Your task to perform on an android device: Open sound settings Image 0: 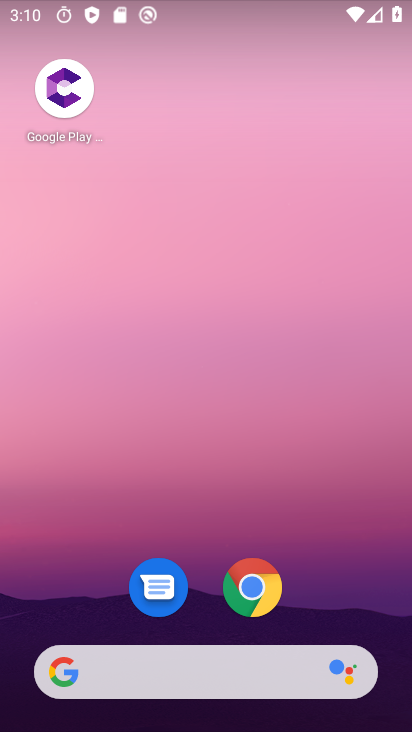
Step 0: drag from (335, 517) to (338, 41)
Your task to perform on an android device: Open sound settings Image 1: 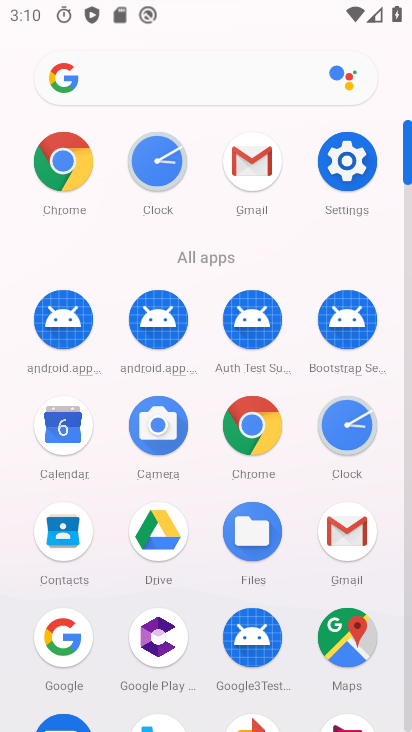
Step 1: click (338, 161)
Your task to perform on an android device: Open sound settings Image 2: 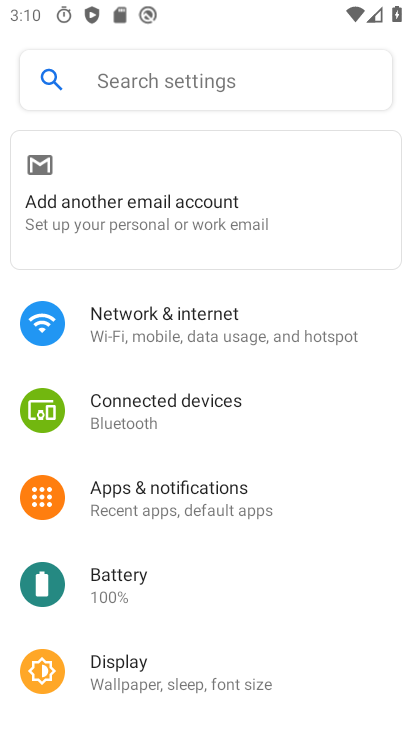
Step 2: drag from (217, 571) to (249, 212)
Your task to perform on an android device: Open sound settings Image 3: 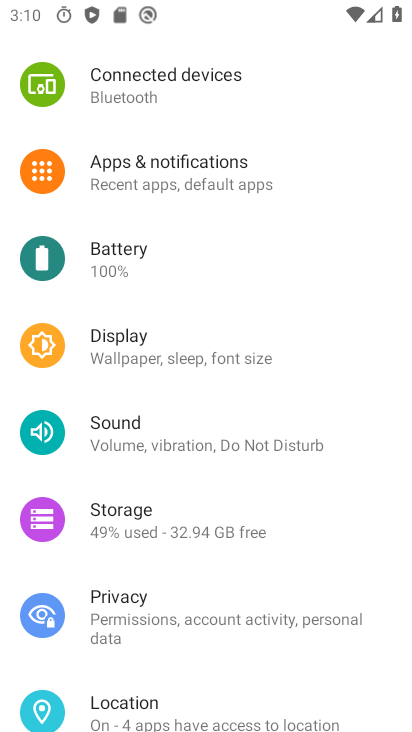
Step 3: click (192, 436)
Your task to perform on an android device: Open sound settings Image 4: 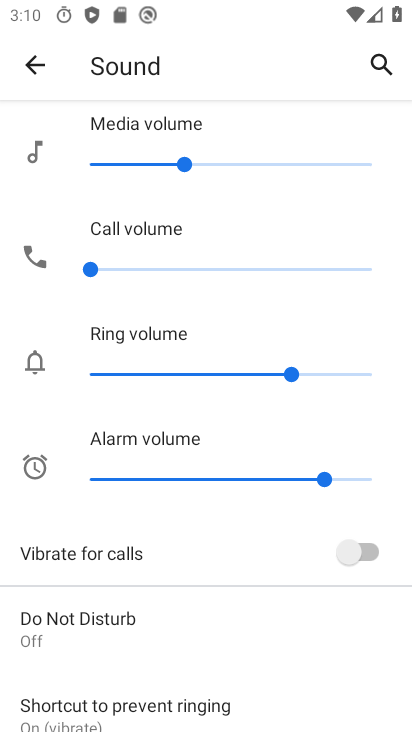
Step 4: task complete